Your task to perform on an android device: turn pop-ups off in chrome Image 0: 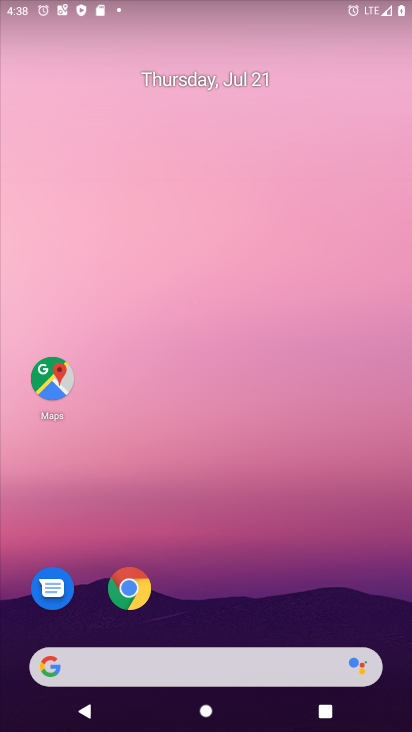
Step 0: drag from (190, 620) to (312, 126)
Your task to perform on an android device: turn pop-ups off in chrome Image 1: 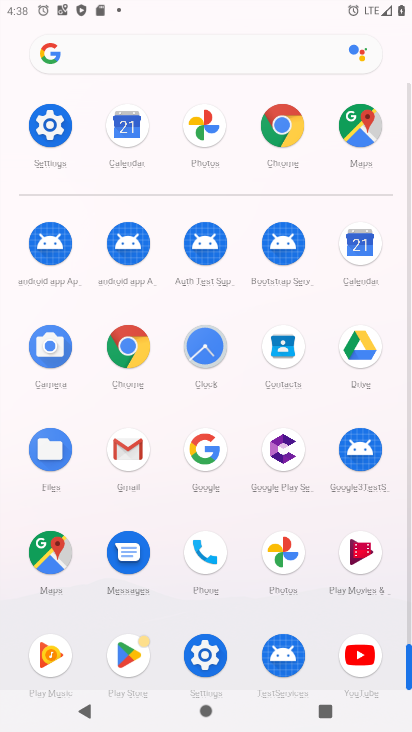
Step 1: click (134, 354)
Your task to perform on an android device: turn pop-ups off in chrome Image 2: 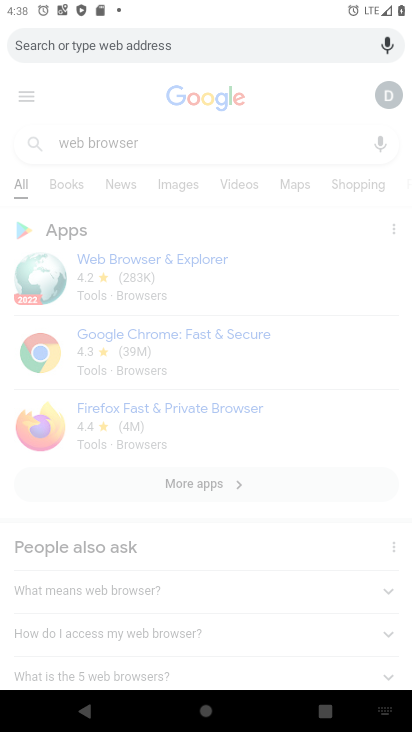
Step 2: press back button
Your task to perform on an android device: turn pop-ups off in chrome Image 3: 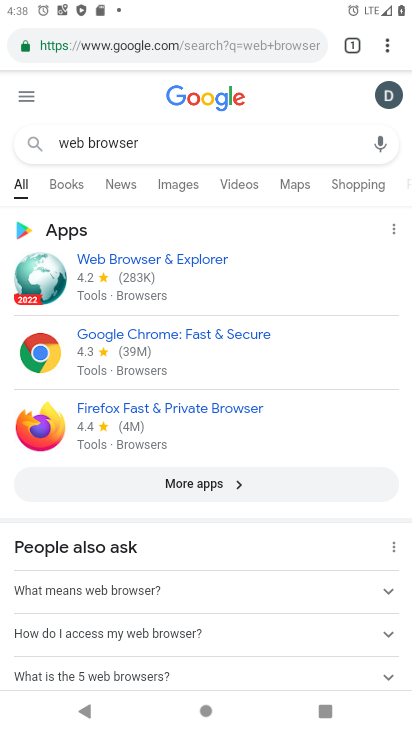
Step 3: drag from (377, 33) to (212, 497)
Your task to perform on an android device: turn pop-ups off in chrome Image 4: 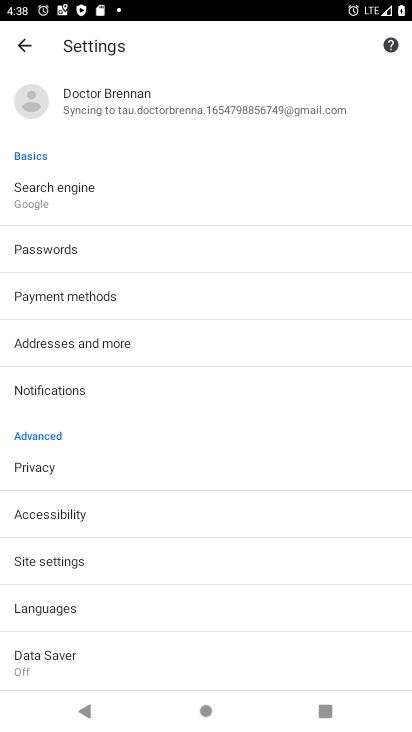
Step 4: drag from (108, 612) to (163, 245)
Your task to perform on an android device: turn pop-ups off in chrome Image 5: 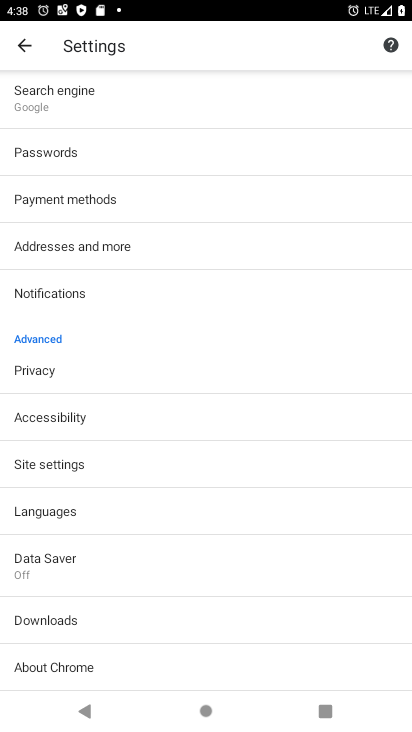
Step 5: click (74, 452)
Your task to perform on an android device: turn pop-ups off in chrome Image 6: 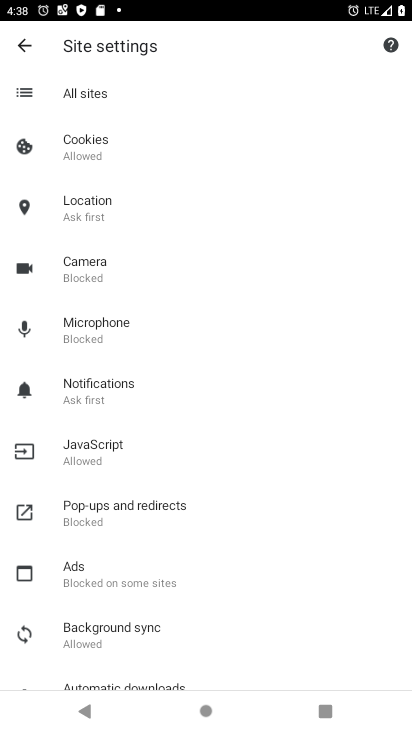
Step 6: click (124, 510)
Your task to perform on an android device: turn pop-ups off in chrome Image 7: 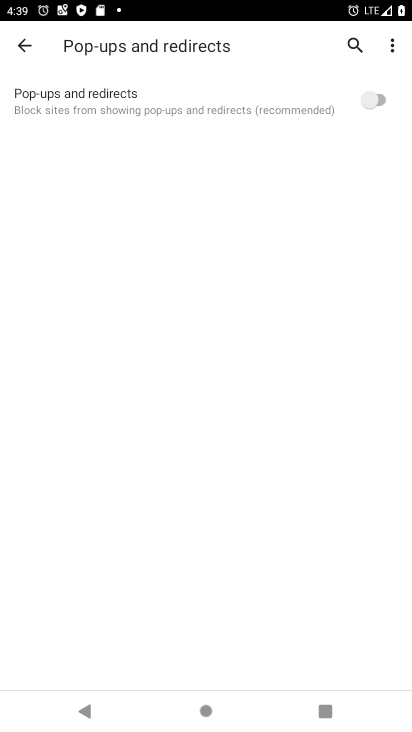
Step 7: task complete